Your task to perform on an android device: Open settings on Google Maps Image 0: 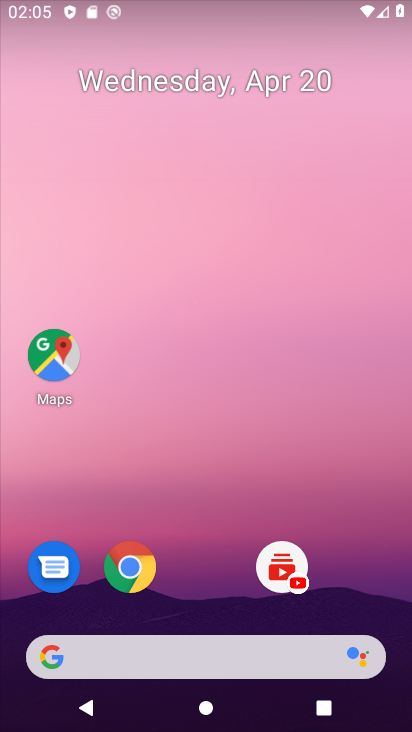
Step 0: drag from (253, 592) to (314, 259)
Your task to perform on an android device: Open settings on Google Maps Image 1: 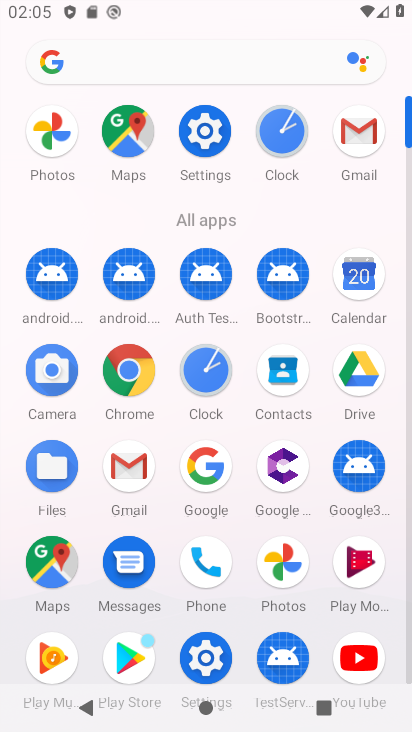
Step 1: click (54, 565)
Your task to perform on an android device: Open settings on Google Maps Image 2: 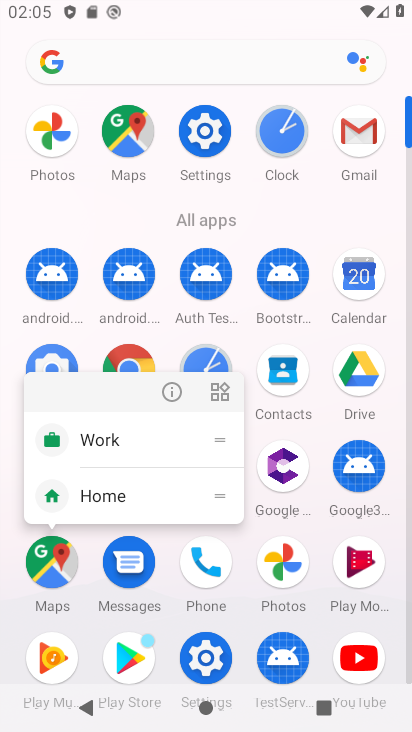
Step 2: click (175, 381)
Your task to perform on an android device: Open settings on Google Maps Image 3: 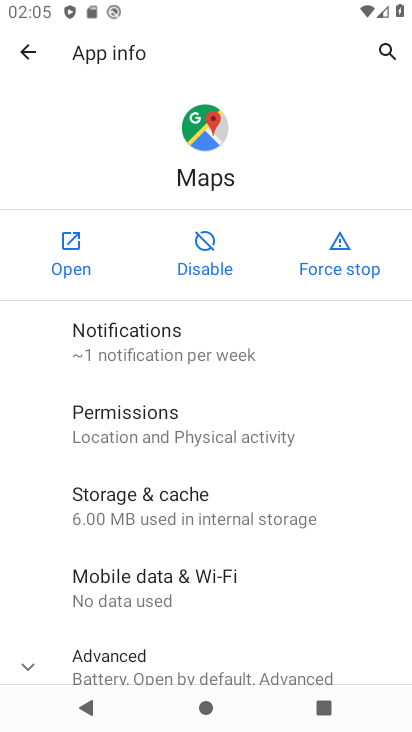
Step 3: click (76, 260)
Your task to perform on an android device: Open settings on Google Maps Image 4: 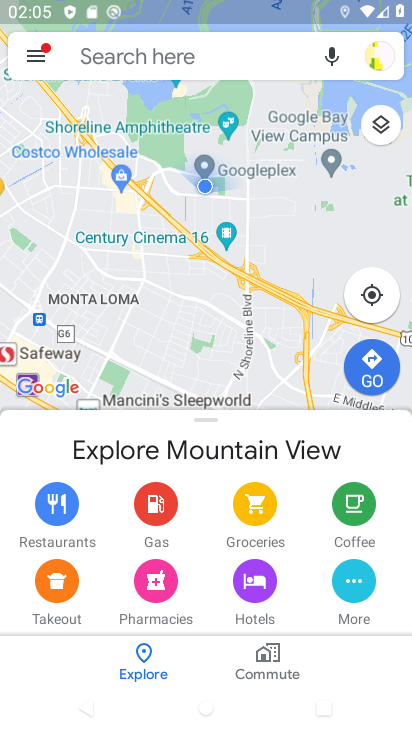
Step 4: click (24, 55)
Your task to perform on an android device: Open settings on Google Maps Image 5: 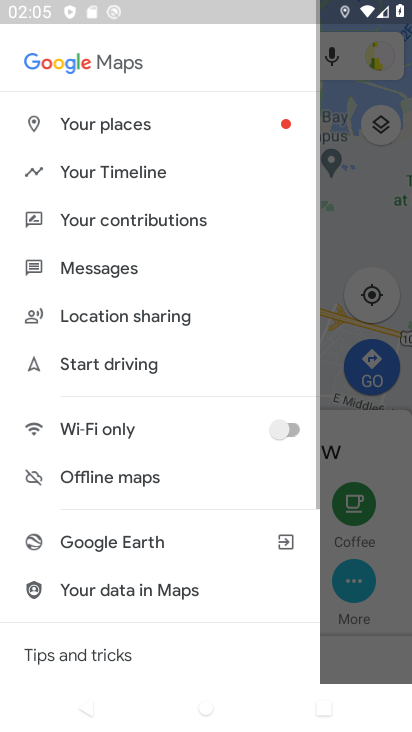
Step 5: click (45, 52)
Your task to perform on an android device: Open settings on Google Maps Image 6: 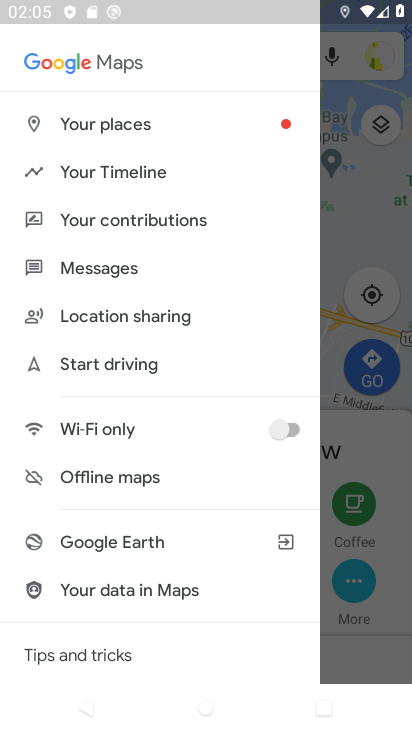
Step 6: drag from (118, 568) to (209, 203)
Your task to perform on an android device: Open settings on Google Maps Image 7: 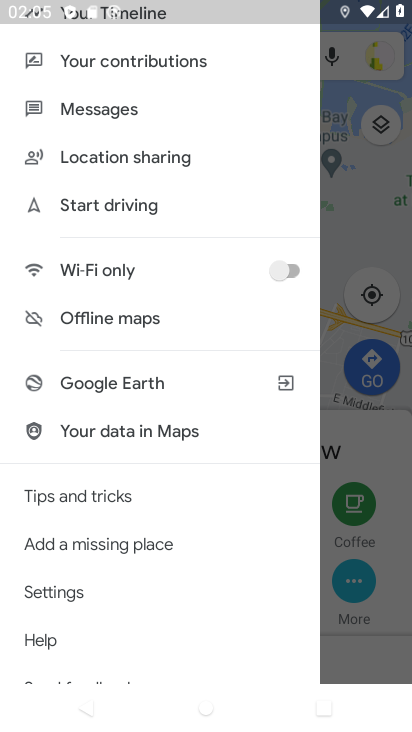
Step 7: click (131, 603)
Your task to perform on an android device: Open settings on Google Maps Image 8: 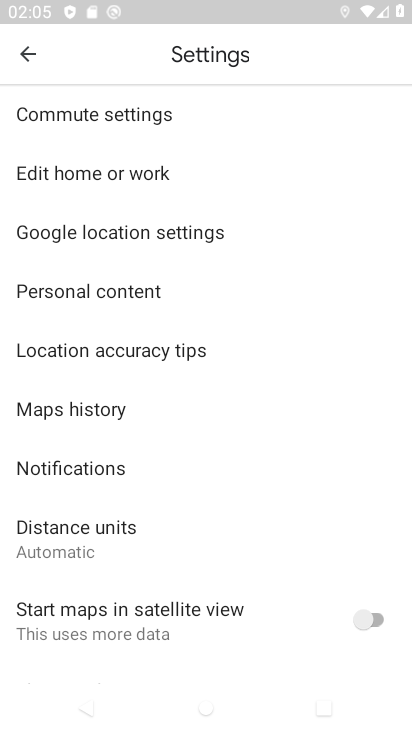
Step 8: task complete